Your task to perform on an android device: Open the stopwatch Image 0: 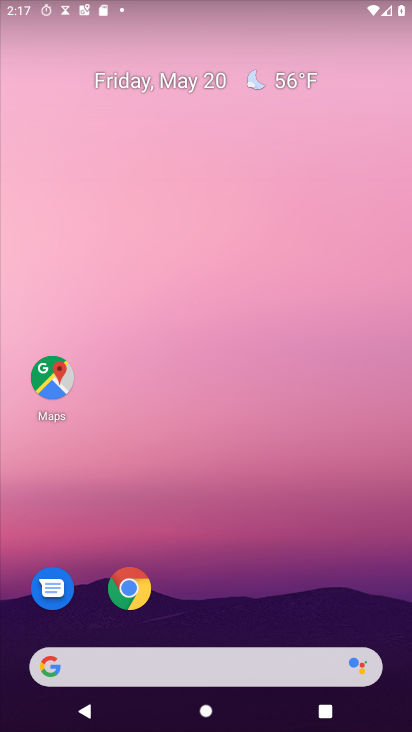
Step 0: drag from (67, 516) to (318, 136)
Your task to perform on an android device: Open the stopwatch Image 1: 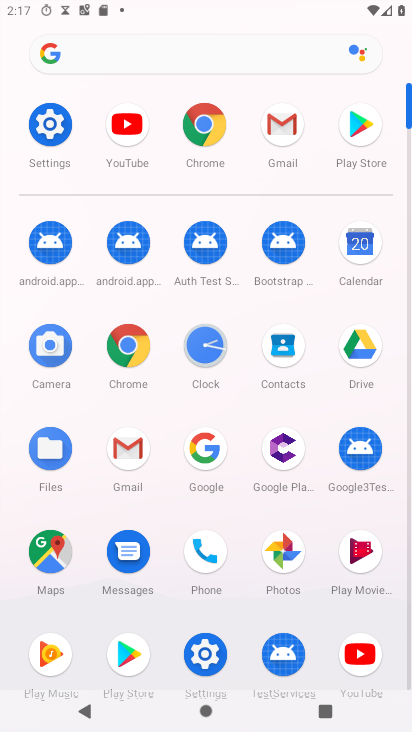
Step 1: click (215, 337)
Your task to perform on an android device: Open the stopwatch Image 2: 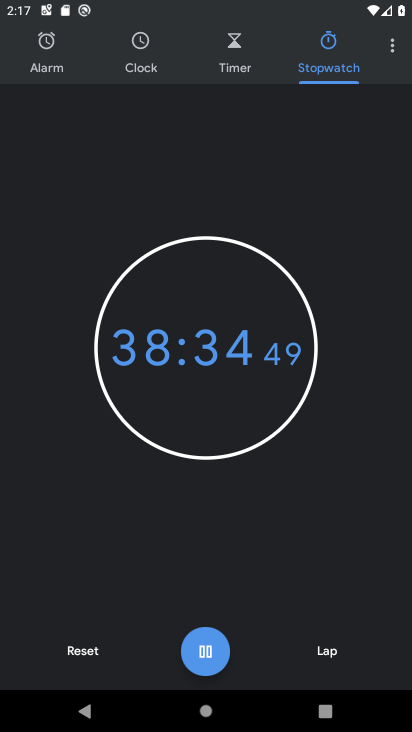
Step 2: task complete